Your task to perform on an android device: turn off improve location accuracy Image 0: 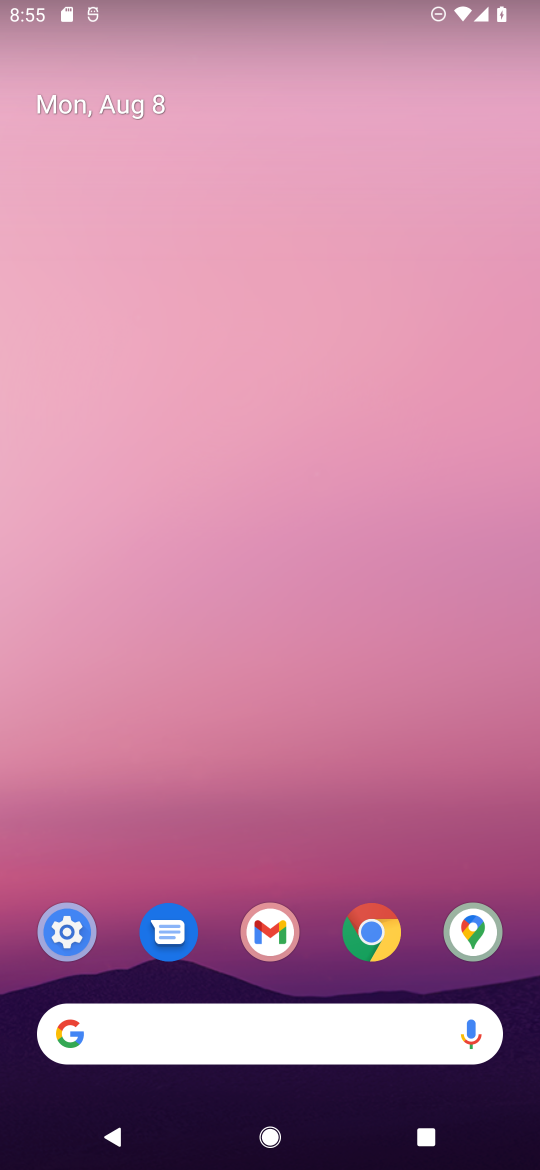
Step 0: click (80, 934)
Your task to perform on an android device: turn off improve location accuracy Image 1: 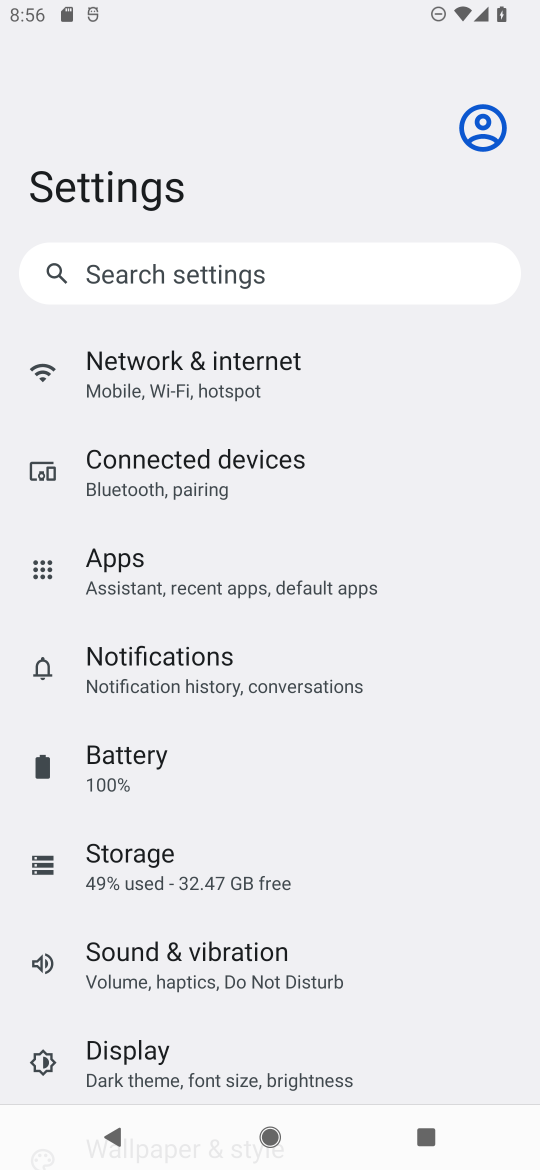
Step 1: drag from (188, 986) to (398, 55)
Your task to perform on an android device: turn off improve location accuracy Image 2: 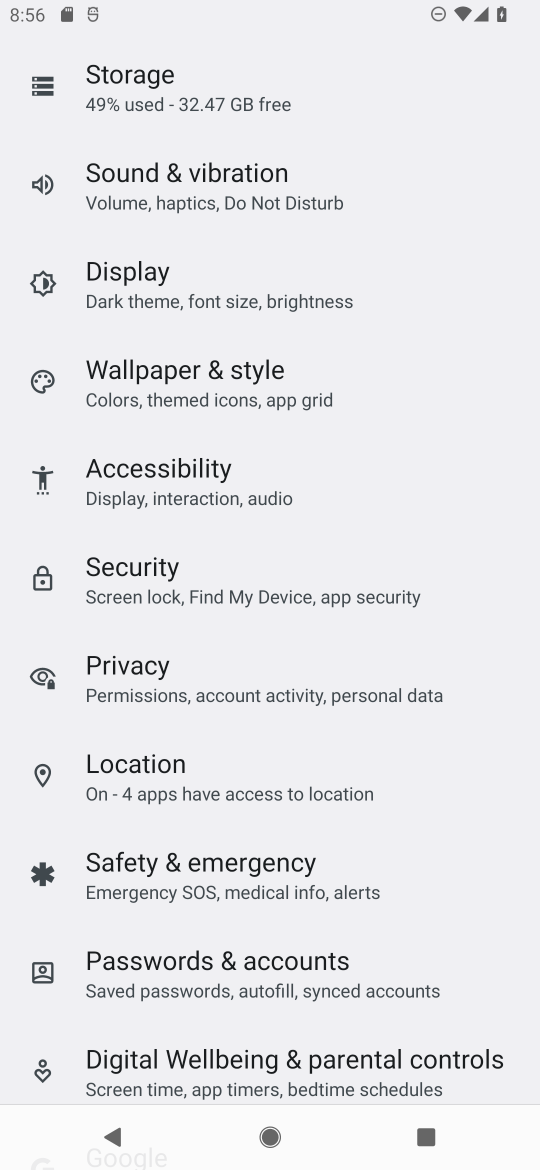
Step 2: click (178, 776)
Your task to perform on an android device: turn off improve location accuracy Image 3: 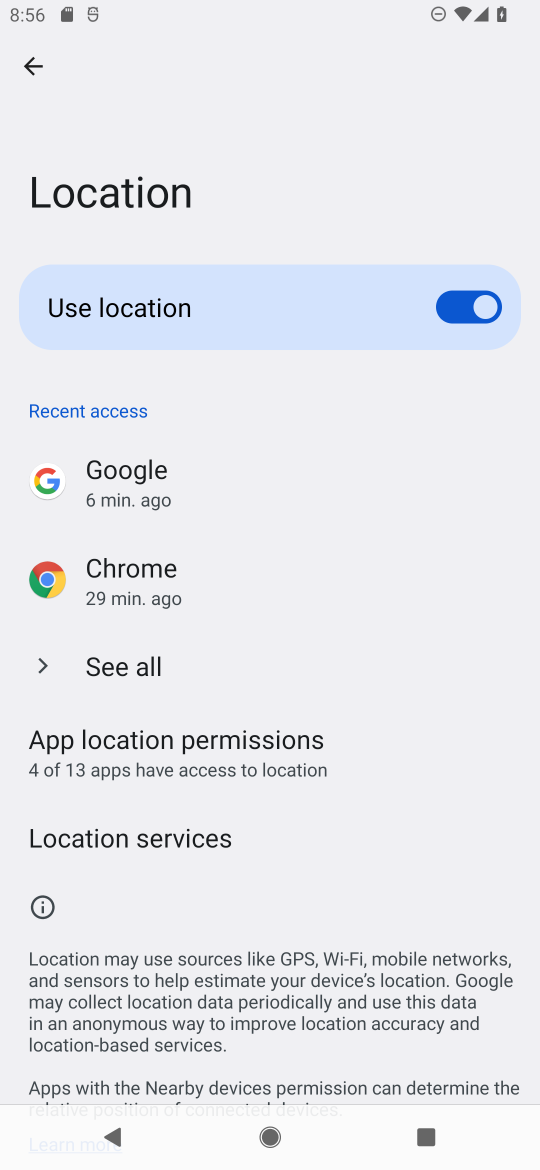
Step 3: click (183, 840)
Your task to perform on an android device: turn off improve location accuracy Image 4: 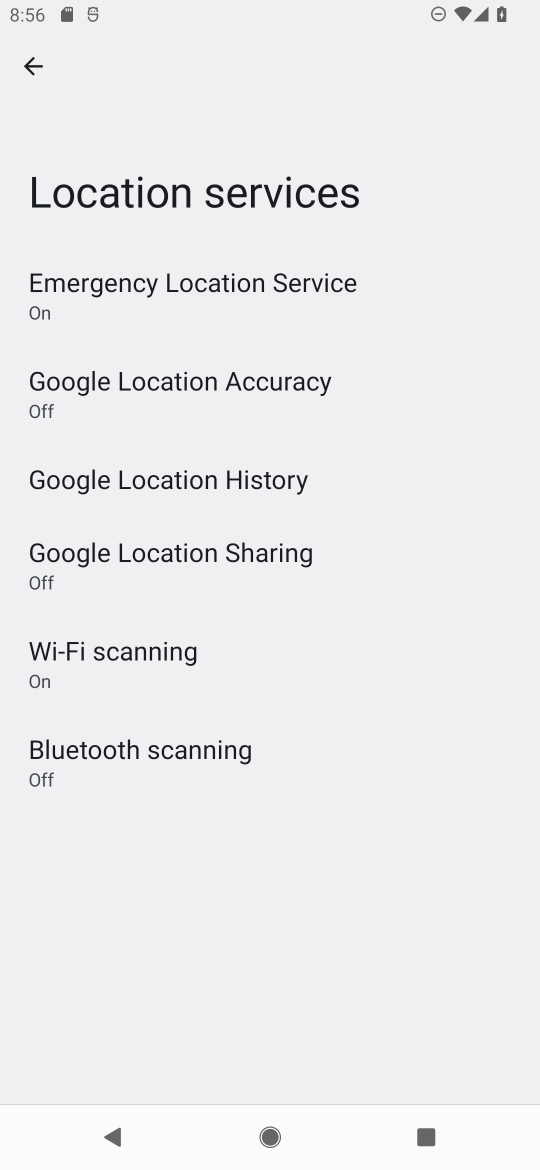
Step 4: click (219, 382)
Your task to perform on an android device: turn off improve location accuracy Image 5: 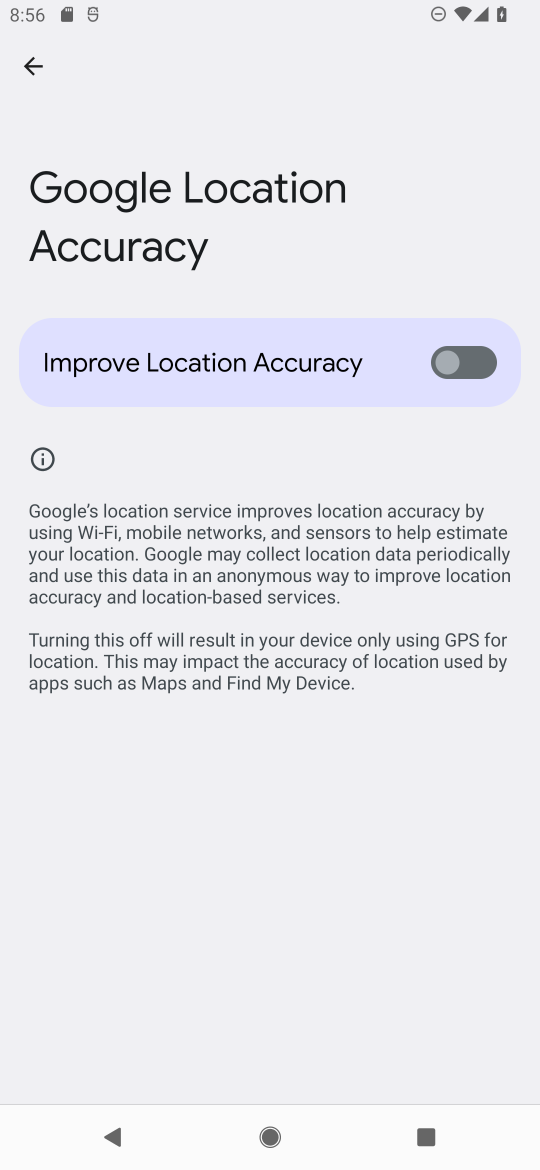
Step 5: task complete